Your task to perform on an android device: Go to CNN.com Image 0: 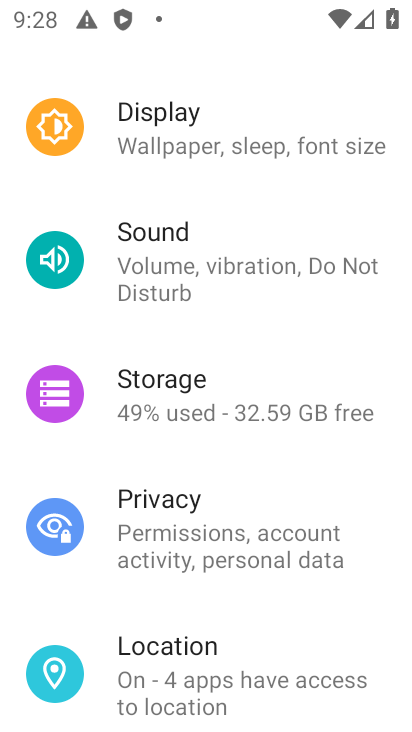
Step 0: press home button
Your task to perform on an android device: Go to CNN.com Image 1: 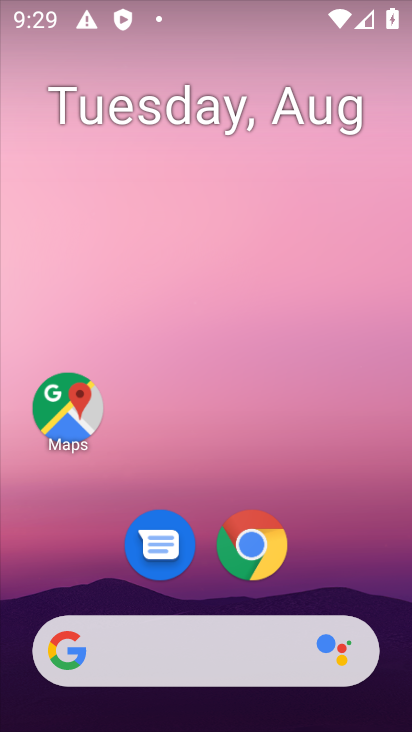
Step 1: click (161, 658)
Your task to perform on an android device: Go to CNN.com Image 2: 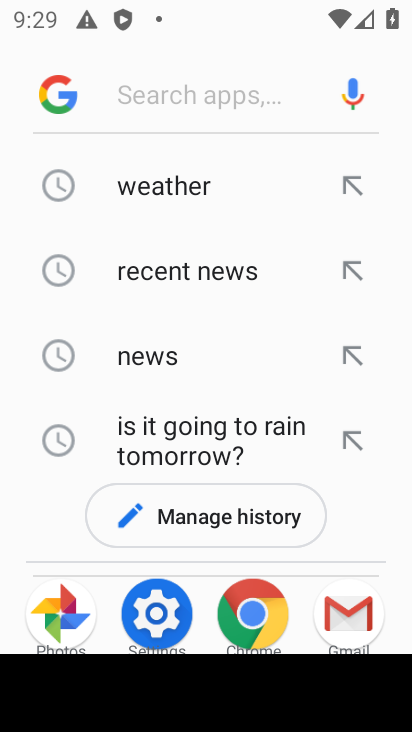
Step 2: click (165, 80)
Your task to perform on an android device: Go to CNN.com Image 3: 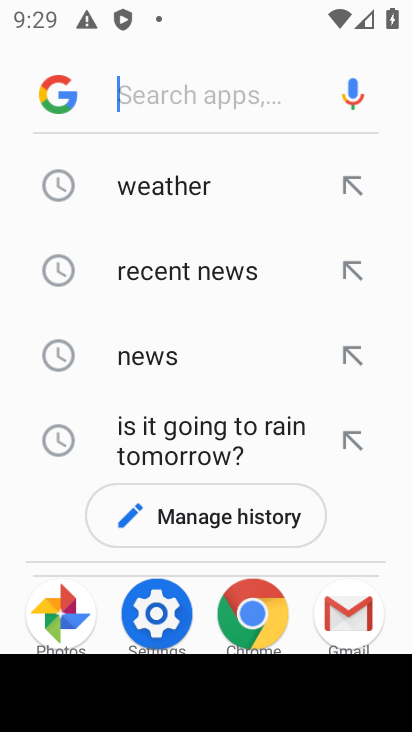
Step 3: type "CNN.com"
Your task to perform on an android device: Go to CNN.com Image 4: 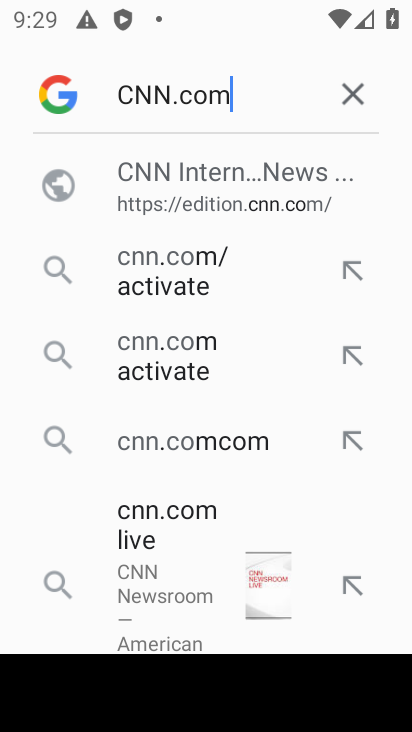
Step 4: type ""
Your task to perform on an android device: Go to CNN.com Image 5: 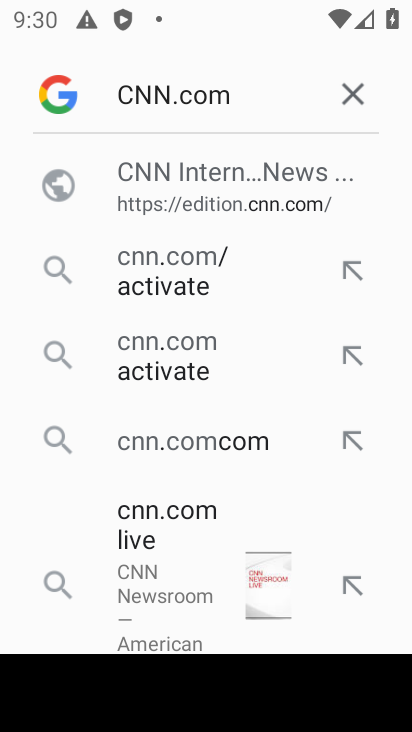
Step 5: click (113, 169)
Your task to perform on an android device: Go to CNN.com Image 6: 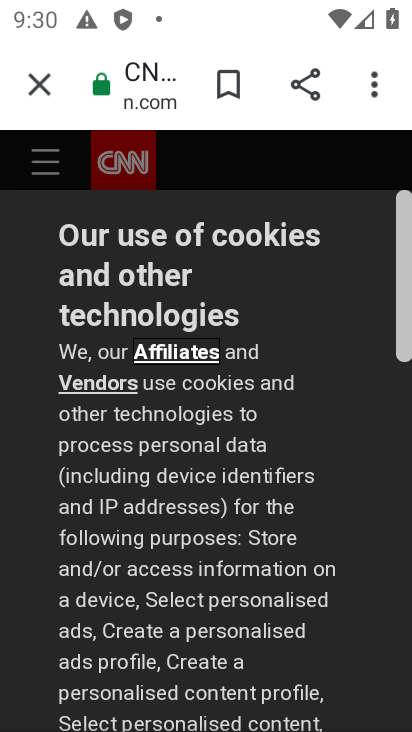
Step 6: task complete